Your task to perform on an android device: check storage Image 0: 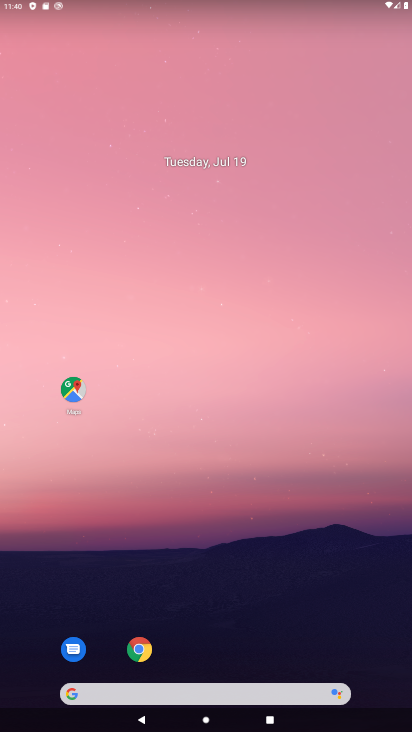
Step 0: drag from (228, 728) to (234, 288)
Your task to perform on an android device: check storage Image 1: 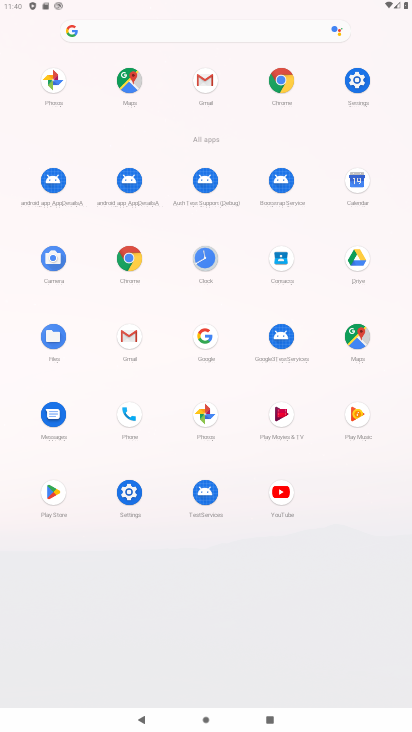
Step 1: click (358, 77)
Your task to perform on an android device: check storage Image 2: 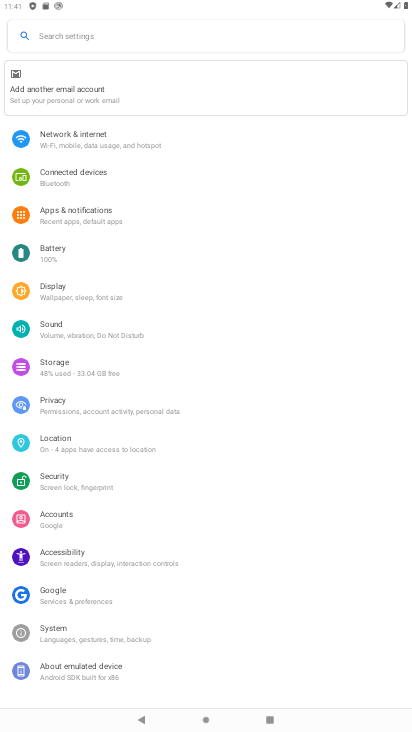
Step 2: click (60, 367)
Your task to perform on an android device: check storage Image 3: 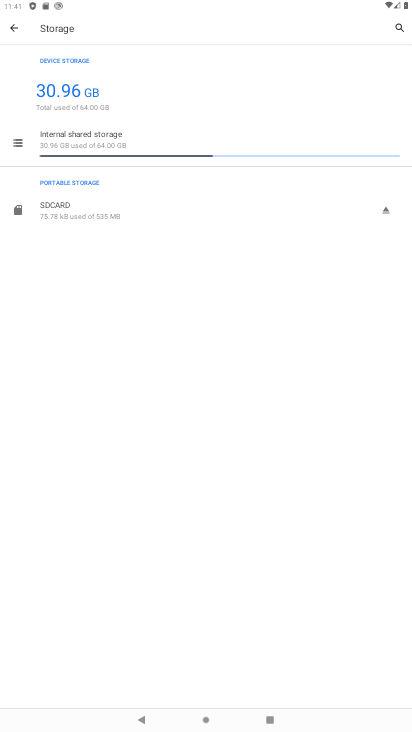
Step 3: task complete